Your task to perform on an android device: Go to ESPN.com Image 0: 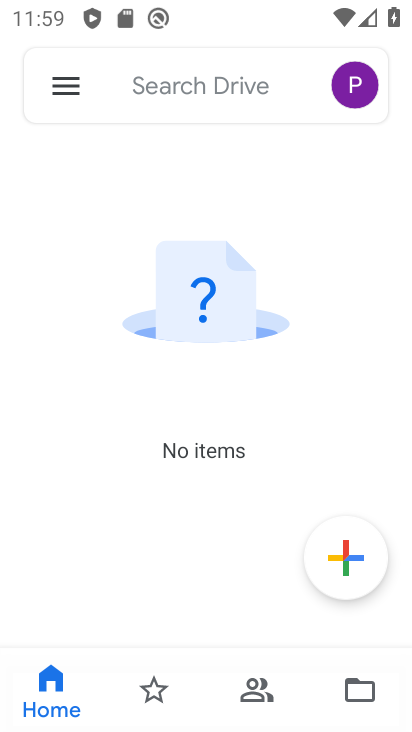
Step 0: press home button
Your task to perform on an android device: Go to ESPN.com Image 1: 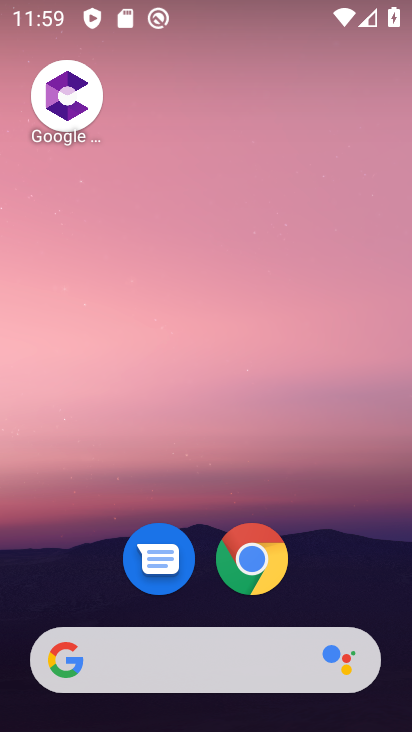
Step 1: click (250, 577)
Your task to perform on an android device: Go to ESPN.com Image 2: 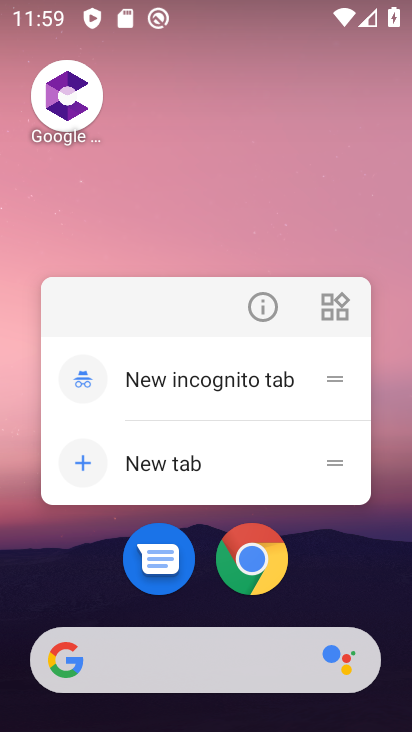
Step 2: click (250, 577)
Your task to perform on an android device: Go to ESPN.com Image 3: 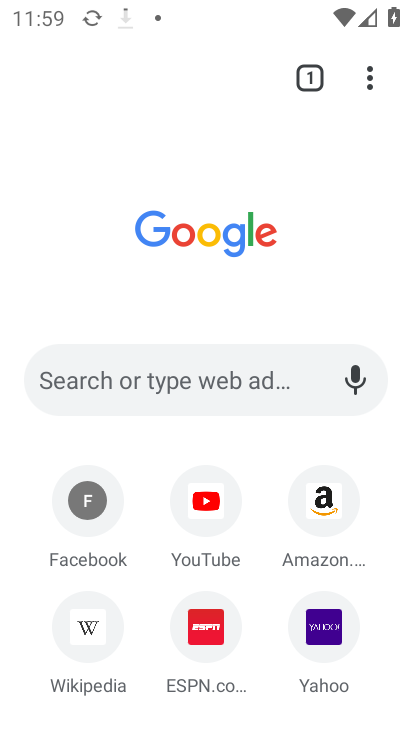
Step 3: click (196, 648)
Your task to perform on an android device: Go to ESPN.com Image 4: 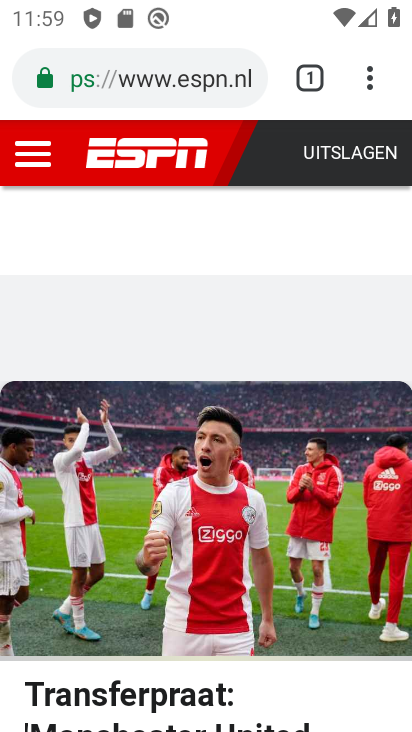
Step 4: task complete